Your task to perform on an android device: Open network settings Image 0: 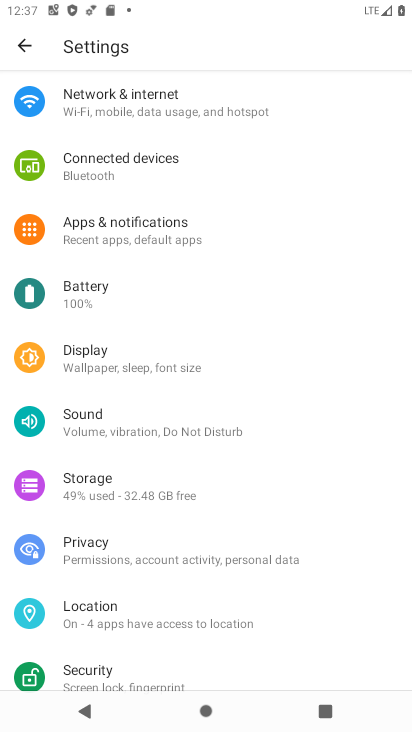
Step 0: click (134, 115)
Your task to perform on an android device: Open network settings Image 1: 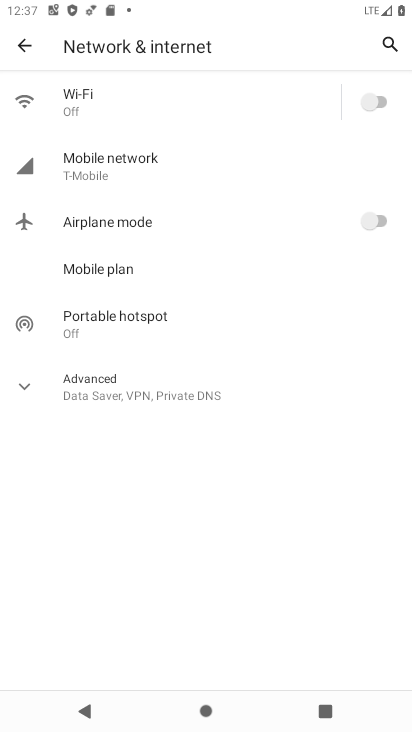
Step 1: task complete